Your task to perform on an android device: What's the weather today? Image 0: 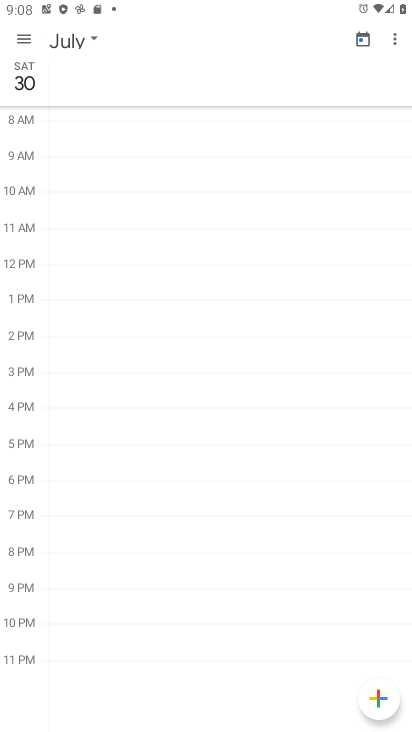
Step 0: drag from (295, 631) to (295, 278)
Your task to perform on an android device: What's the weather today? Image 1: 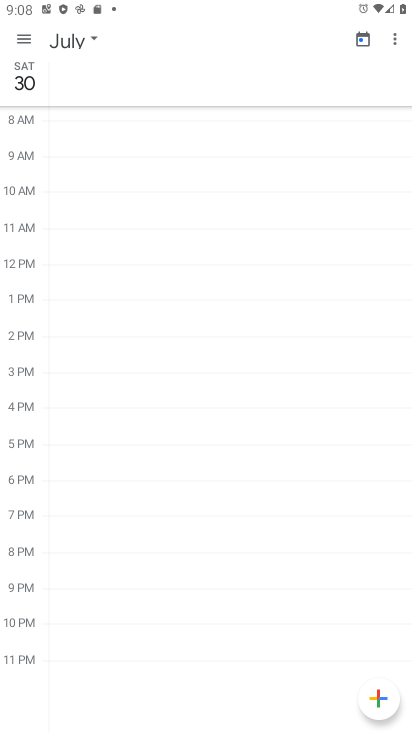
Step 1: press back button
Your task to perform on an android device: What's the weather today? Image 2: 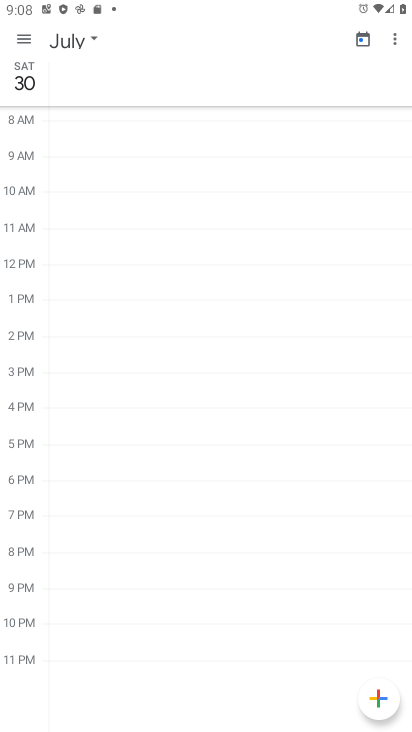
Step 2: press back button
Your task to perform on an android device: What's the weather today? Image 3: 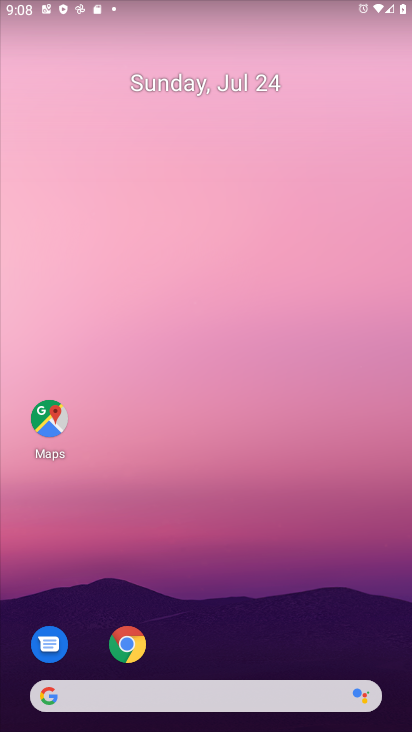
Step 3: drag from (219, 546) to (219, 298)
Your task to perform on an android device: What's the weather today? Image 4: 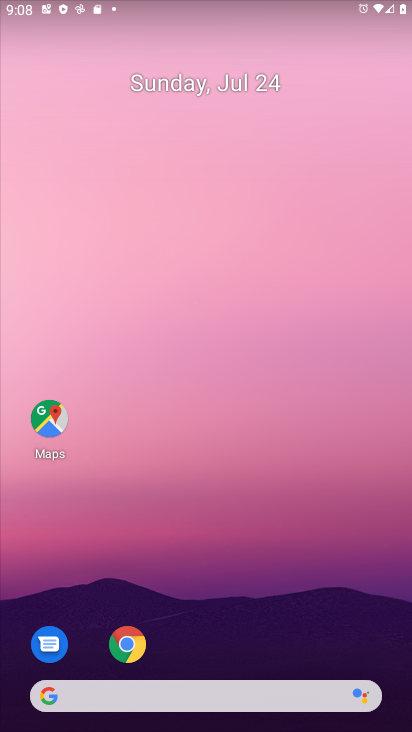
Step 4: drag from (82, 172) to (357, 282)
Your task to perform on an android device: What's the weather today? Image 5: 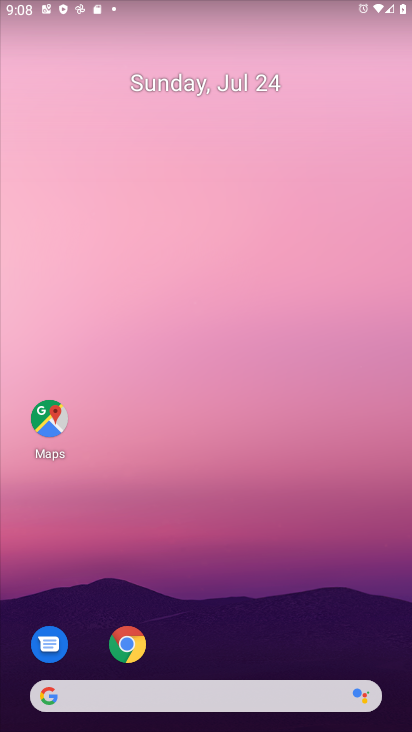
Step 5: click (395, 310)
Your task to perform on an android device: What's the weather today? Image 6: 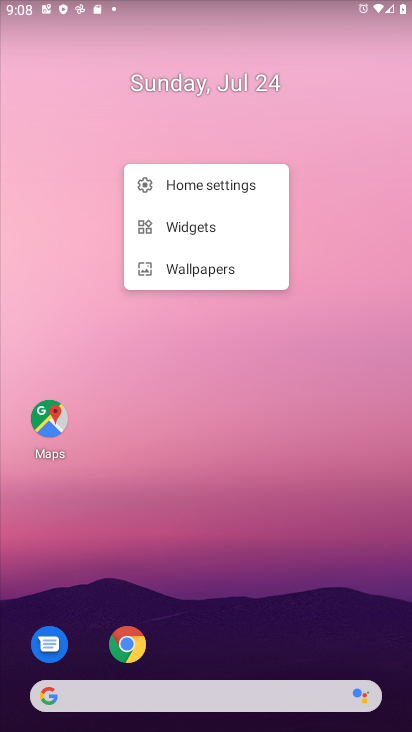
Step 6: drag from (58, 232) to (406, 377)
Your task to perform on an android device: What's the weather today? Image 7: 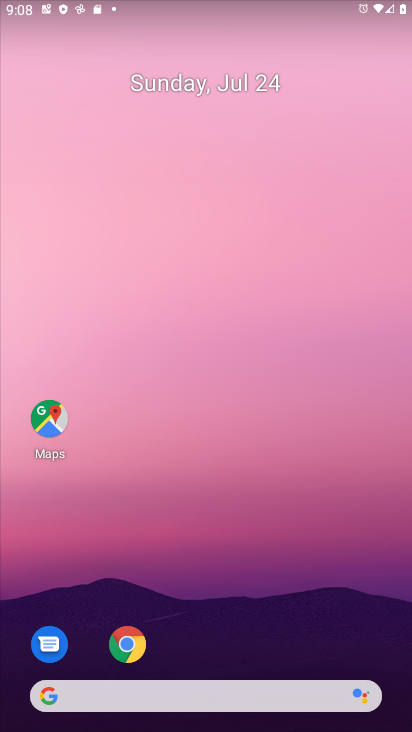
Step 7: drag from (52, 352) to (380, 463)
Your task to perform on an android device: What's the weather today? Image 8: 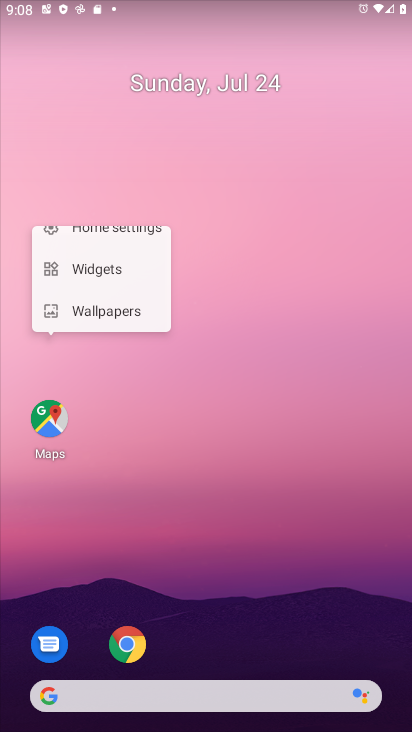
Step 8: drag from (75, 215) to (386, 335)
Your task to perform on an android device: What's the weather today? Image 9: 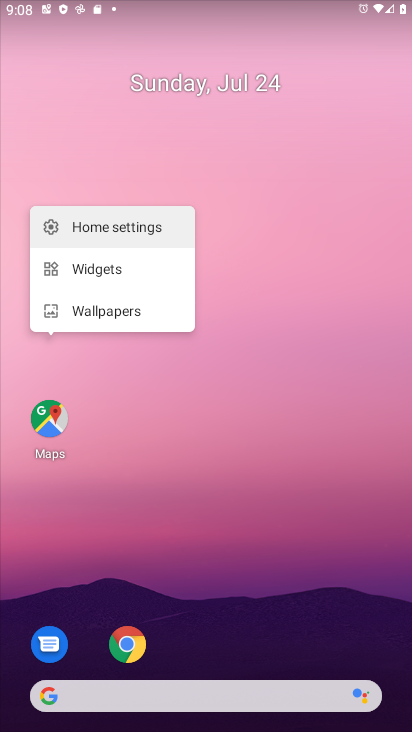
Step 9: drag from (205, 192) to (344, 469)
Your task to perform on an android device: What's the weather today? Image 10: 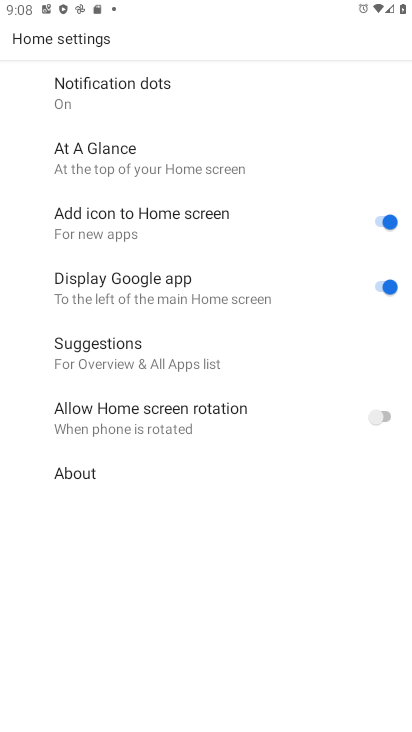
Step 10: drag from (17, 190) to (390, 432)
Your task to perform on an android device: What's the weather today? Image 11: 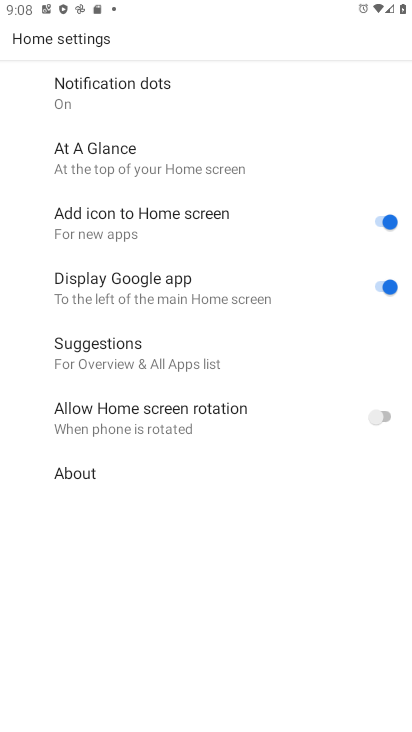
Step 11: press back button
Your task to perform on an android device: What's the weather today? Image 12: 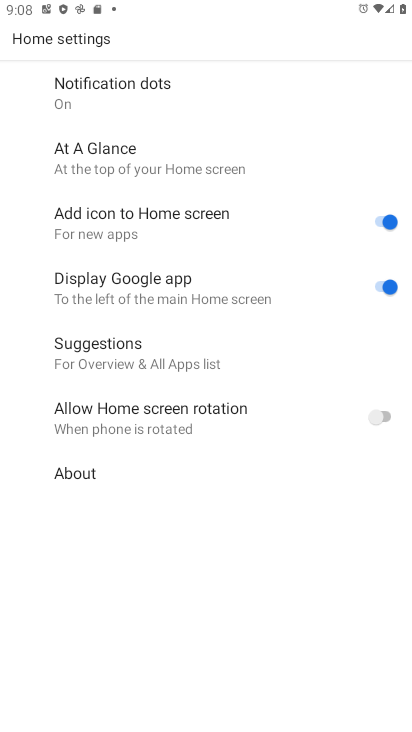
Step 12: press back button
Your task to perform on an android device: What's the weather today? Image 13: 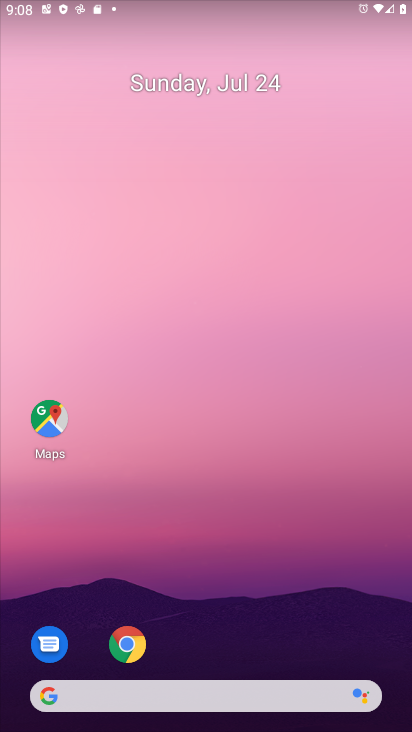
Step 13: drag from (99, 142) to (411, 294)
Your task to perform on an android device: What's the weather today? Image 14: 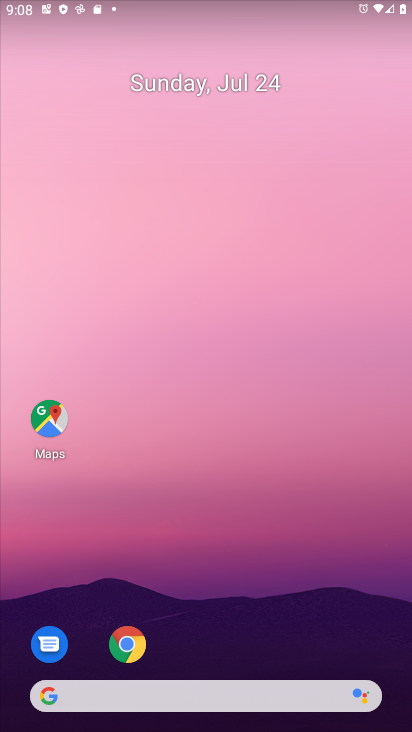
Step 14: drag from (139, 121) to (370, 314)
Your task to perform on an android device: What's the weather today? Image 15: 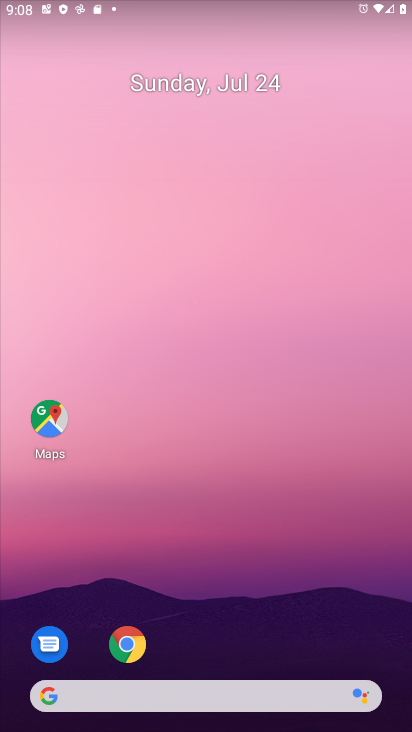
Step 15: drag from (179, 193) to (380, 327)
Your task to perform on an android device: What's the weather today? Image 16: 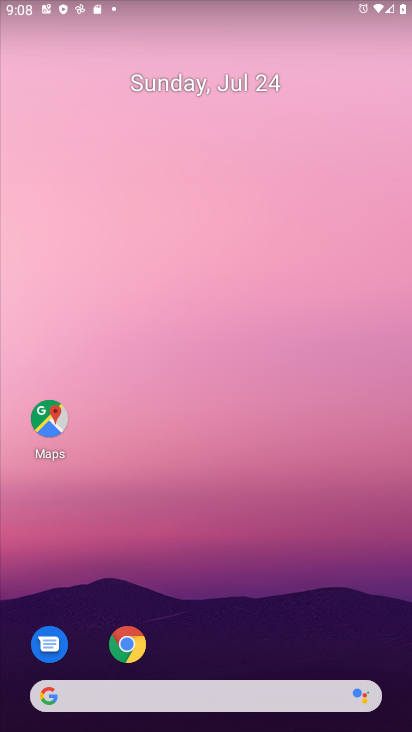
Step 16: drag from (104, 169) to (366, 432)
Your task to perform on an android device: What's the weather today? Image 17: 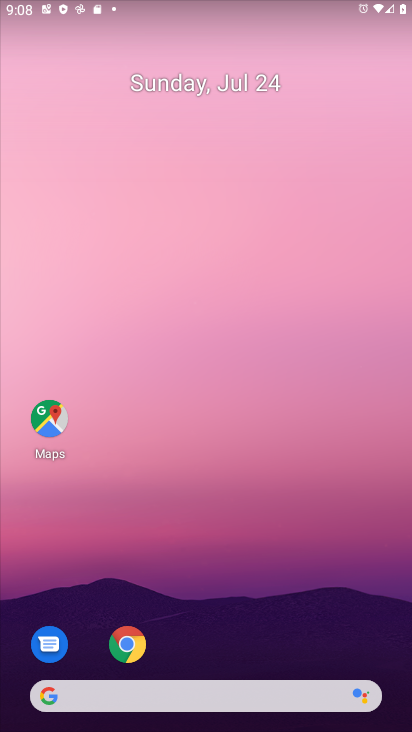
Step 17: drag from (186, 621) to (211, 149)
Your task to perform on an android device: What's the weather today? Image 18: 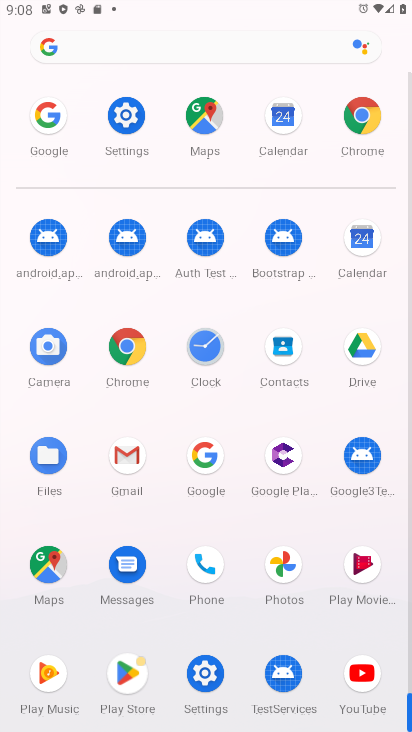
Step 18: click (127, 344)
Your task to perform on an android device: What's the weather today? Image 19: 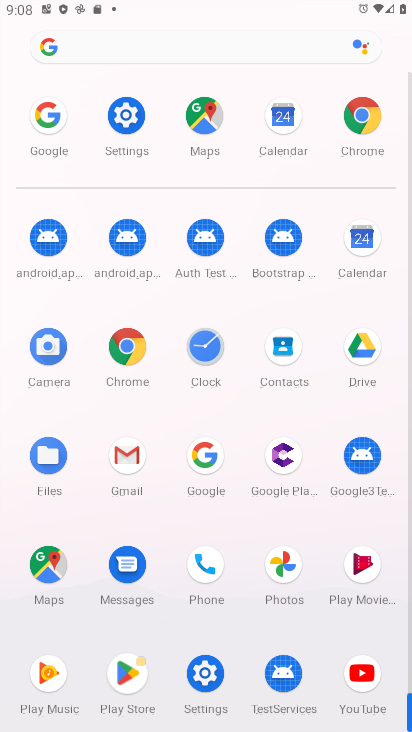
Step 19: click (134, 345)
Your task to perform on an android device: What's the weather today? Image 20: 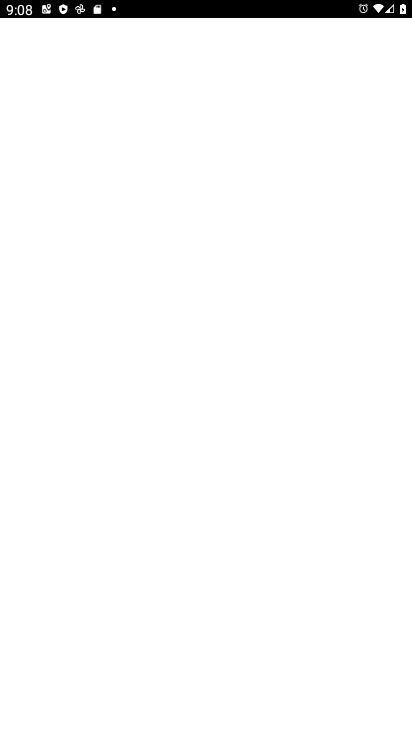
Step 20: click (126, 340)
Your task to perform on an android device: What's the weather today? Image 21: 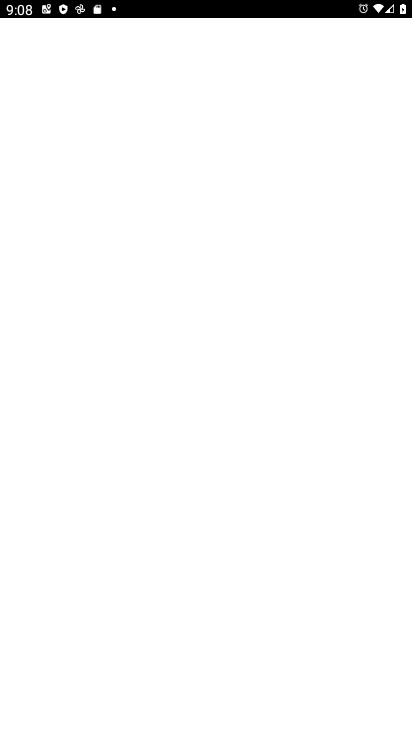
Step 21: click (129, 337)
Your task to perform on an android device: What's the weather today? Image 22: 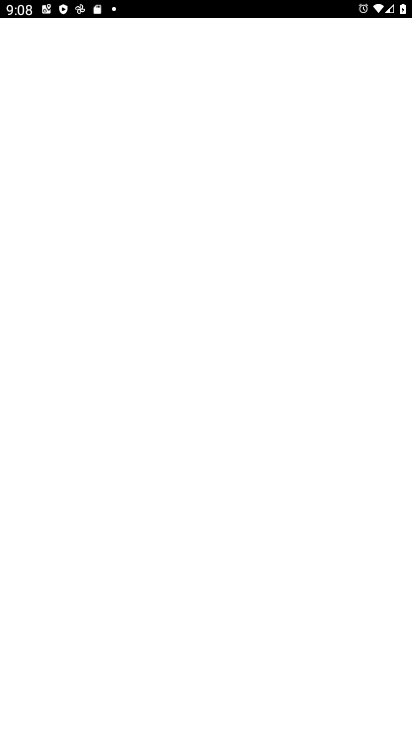
Step 22: click (106, 336)
Your task to perform on an android device: What's the weather today? Image 23: 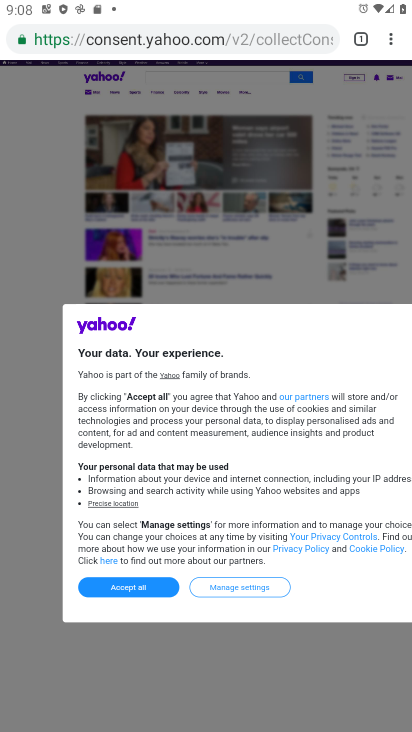
Step 23: click (393, 38)
Your task to perform on an android device: What's the weather today? Image 24: 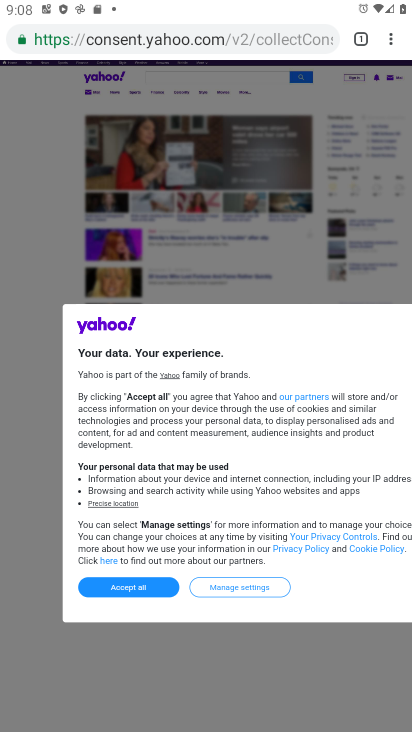
Step 24: click (393, 39)
Your task to perform on an android device: What's the weather today? Image 25: 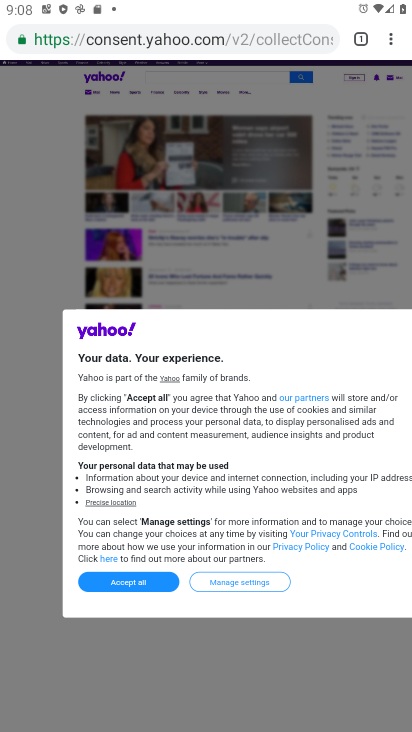
Step 25: click (390, 35)
Your task to perform on an android device: What's the weather today? Image 26: 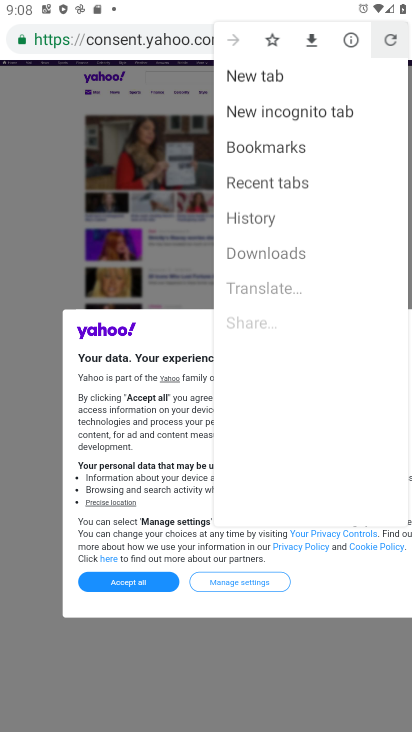
Step 26: click (390, 37)
Your task to perform on an android device: What's the weather today? Image 27: 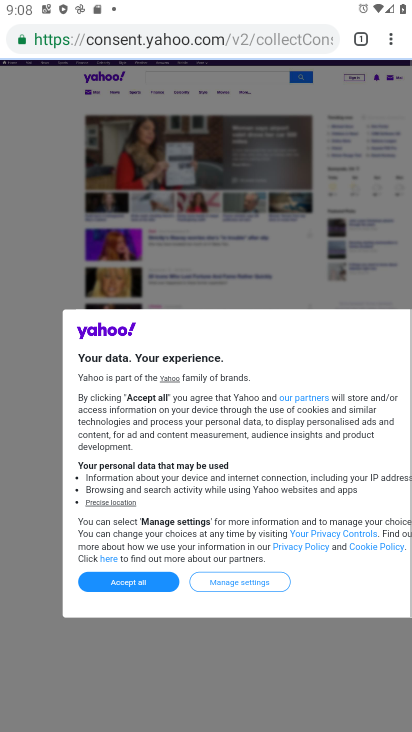
Step 27: click (242, 78)
Your task to perform on an android device: What's the weather today? Image 28: 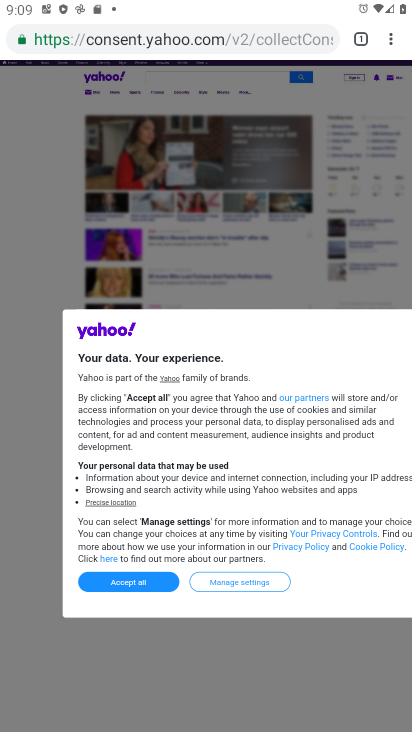
Step 28: click (400, 33)
Your task to perform on an android device: What's the weather today? Image 29: 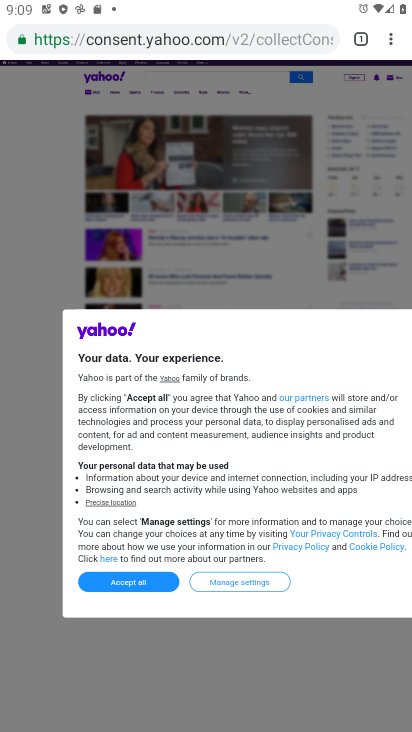
Step 29: click (390, 41)
Your task to perform on an android device: What's the weather today? Image 30: 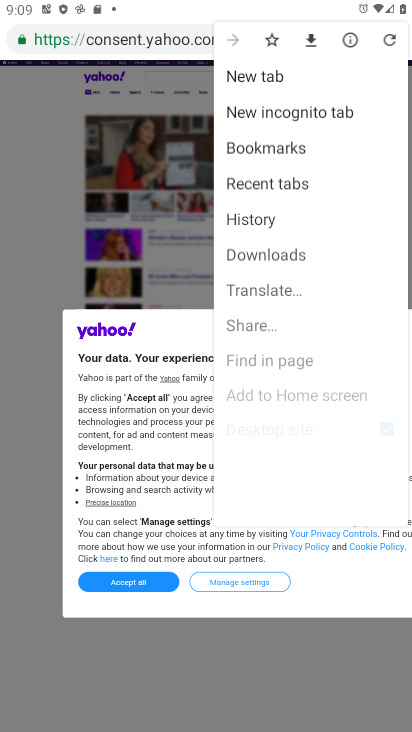
Step 30: click (392, 42)
Your task to perform on an android device: What's the weather today? Image 31: 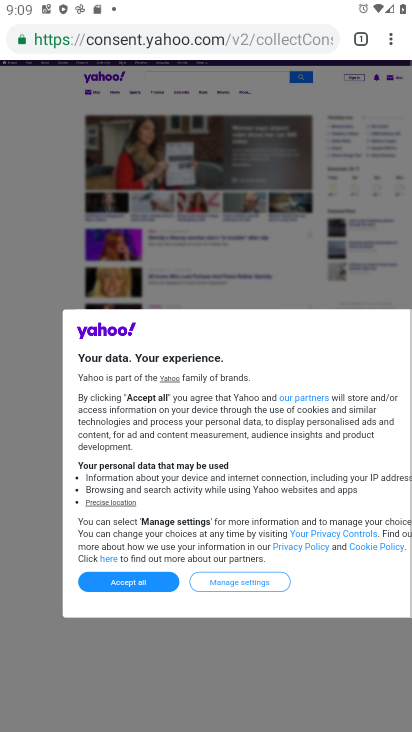
Step 31: click (260, 77)
Your task to perform on an android device: What's the weather today? Image 32: 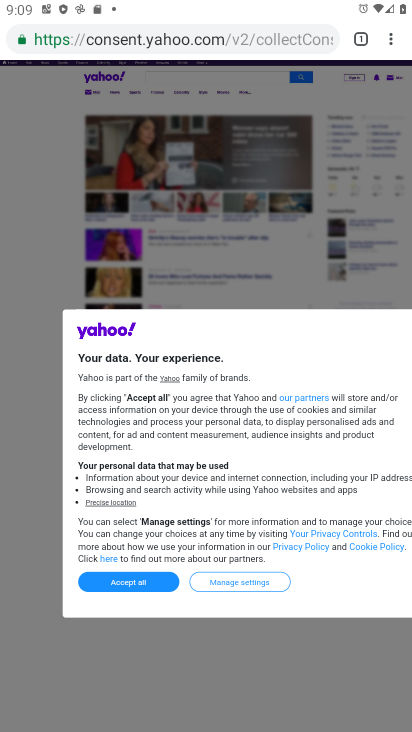
Step 32: drag from (396, 41) to (270, 76)
Your task to perform on an android device: What's the weather today? Image 33: 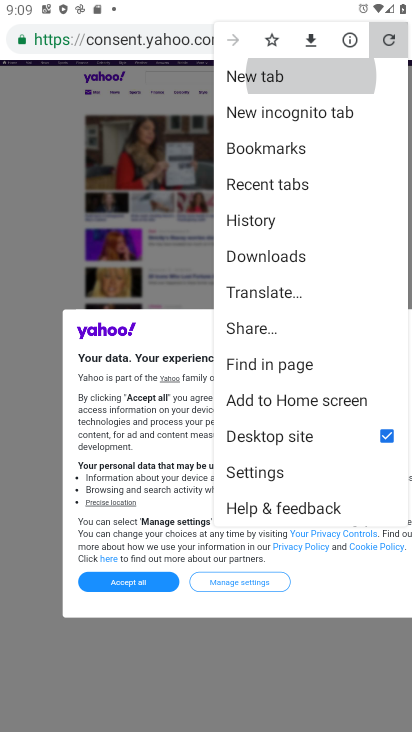
Step 33: click (264, 73)
Your task to perform on an android device: What's the weather today? Image 34: 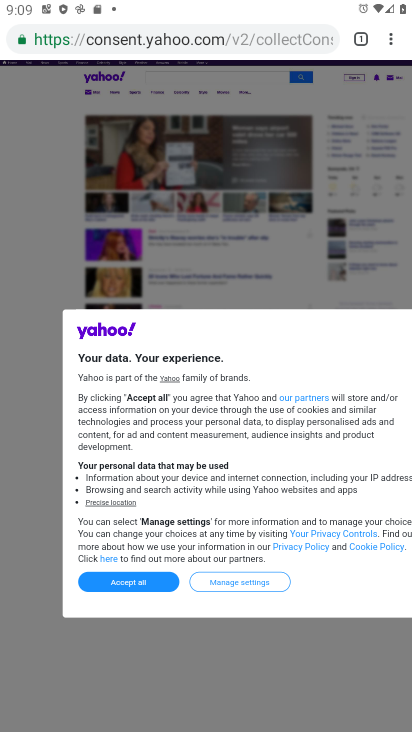
Step 34: click (263, 71)
Your task to perform on an android device: What's the weather today? Image 35: 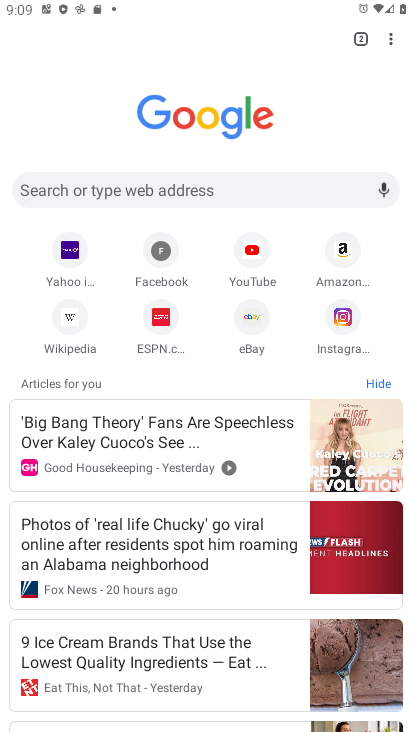
Step 35: click (73, 196)
Your task to perform on an android device: What's the weather today? Image 36: 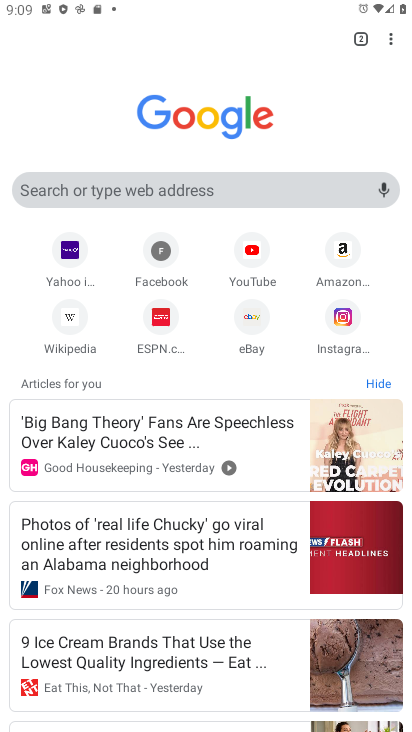
Step 36: click (75, 192)
Your task to perform on an android device: What's the weather today? Image 37: 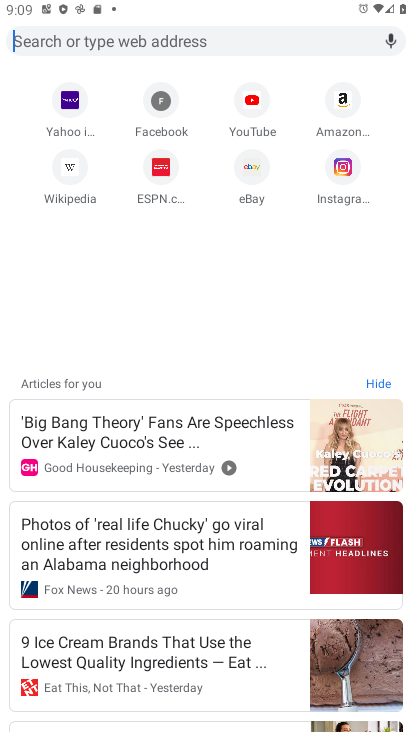
Step 37: click (80, 190)
Your task to perform on an android device: What's the weather today? Image 38: 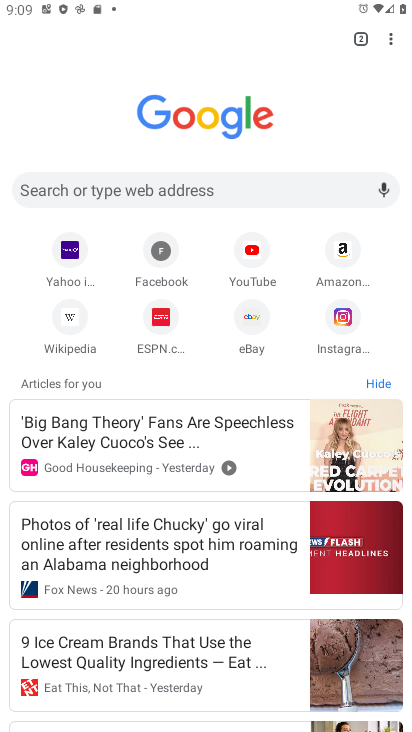
Step 38: type "what'sthe weather today?"
Your task to perform on an android device: What's the weather today? Image 39: 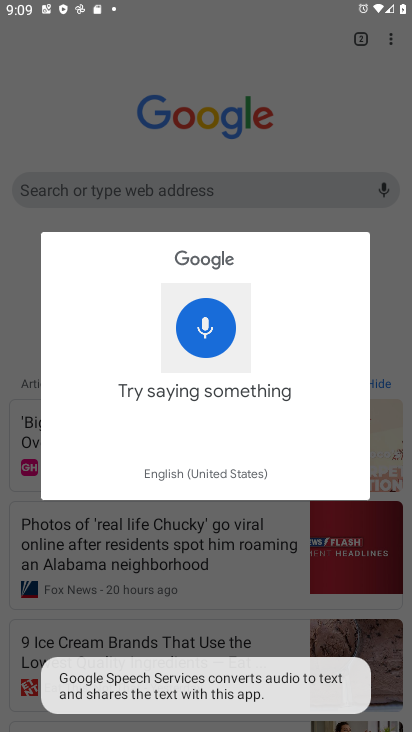
Step 39: click (296, 108)
Your task to perform on an android device: What's the weather today? Image 40: 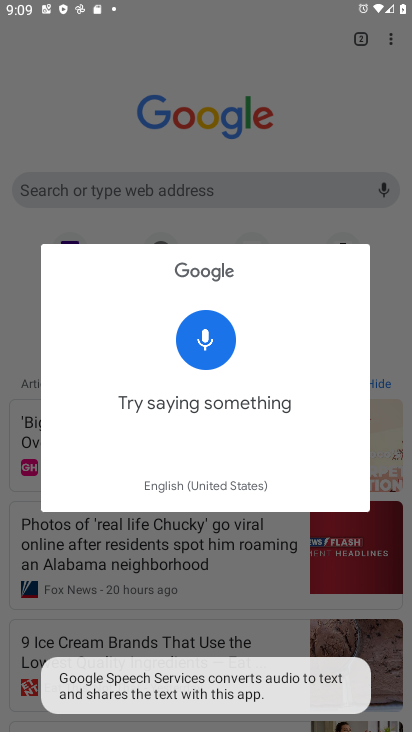
Step 40: click (298, 108)
Your task to perform on an android device: What's the weather today? Image 41: 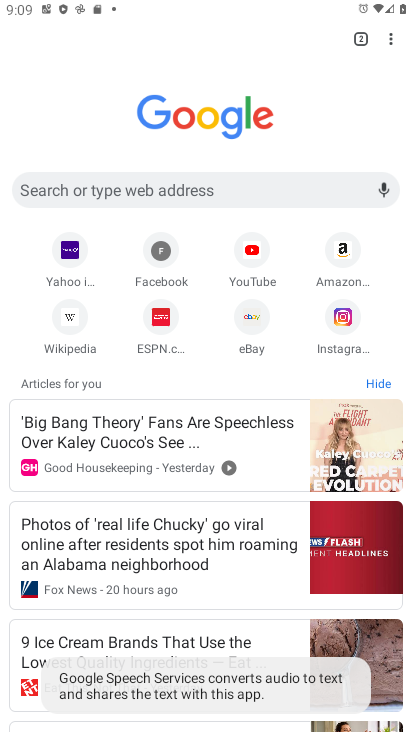
Step 41: click (299, 110)
Your task to perform on an android device: What's the weather today? Image 42: 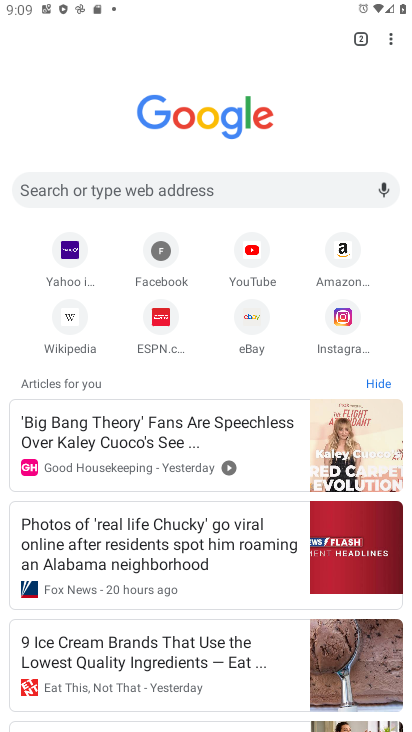
Step 42: click (95, 185)
Your task to perform on an android device: What's the weather today? Image 43: 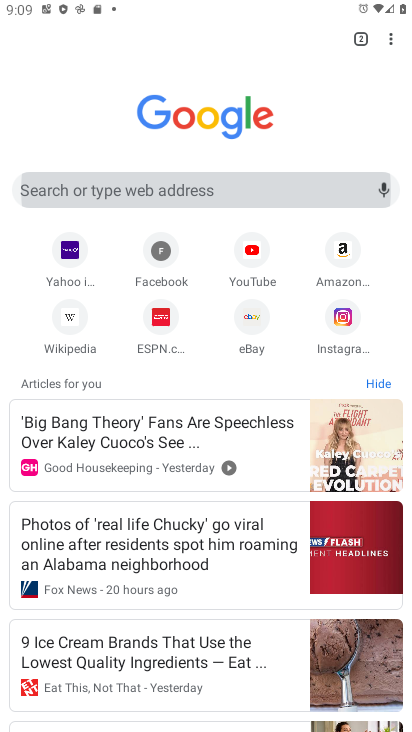
Step 43: click (96, 178)
Your task to perform on an android device: What's the weather today? Image 44: 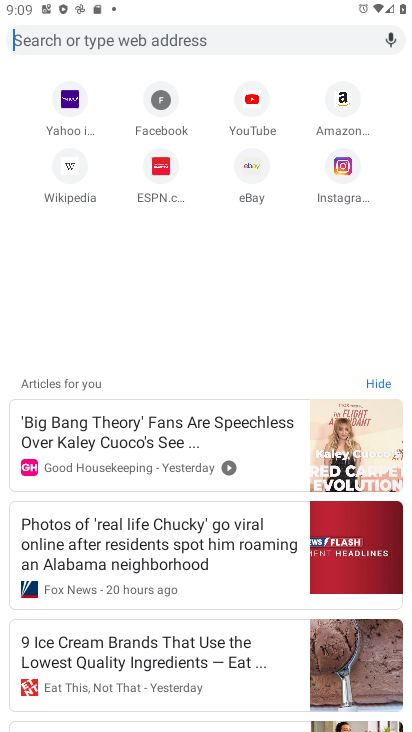
Step 44: click (97, 177)
Your task to perform on an android device: What's the weather today? Image 45: 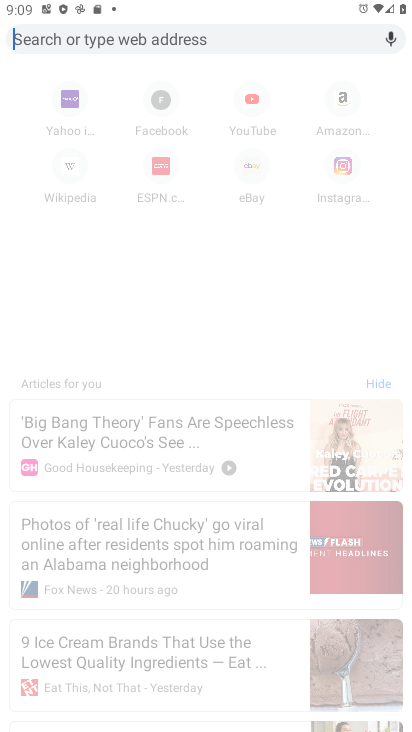
Step 45: click (97, 177)
Your task to perform on an android device: What's the weather today? Image 46: 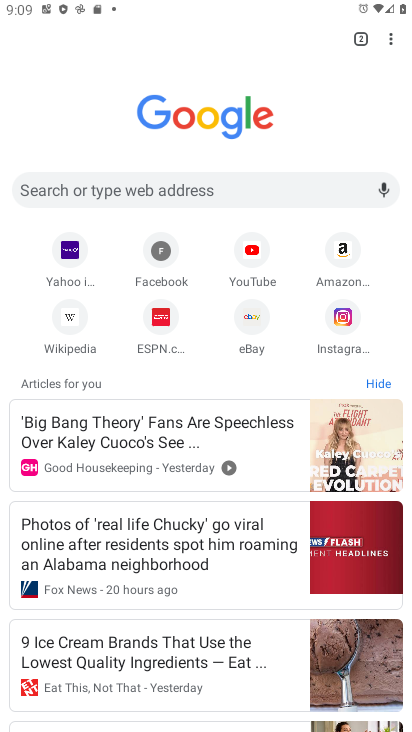
Step 46: click (53, 183)
Your task to perform on an android device: What's the weather today? Image 47: 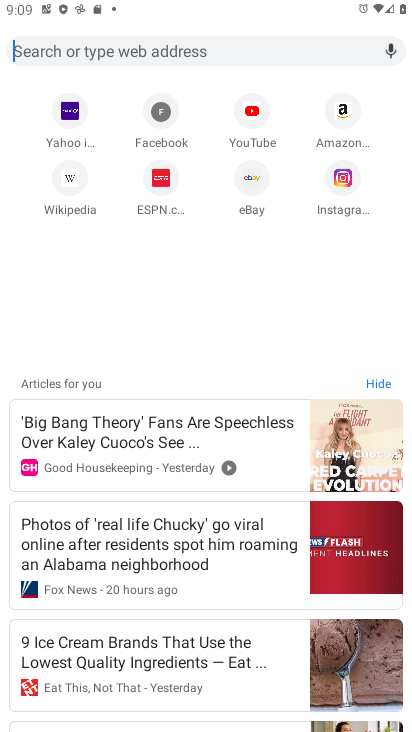
Step 47: click (69, 186)
Your task to perform on an android device: What's the weather today? Image 48: 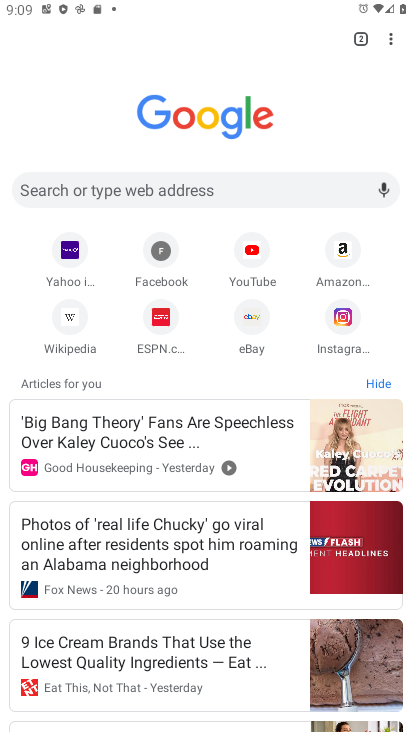
Step 48: click (83, 194)
Your task to perform on an android device: What's the weather today? Image 49: 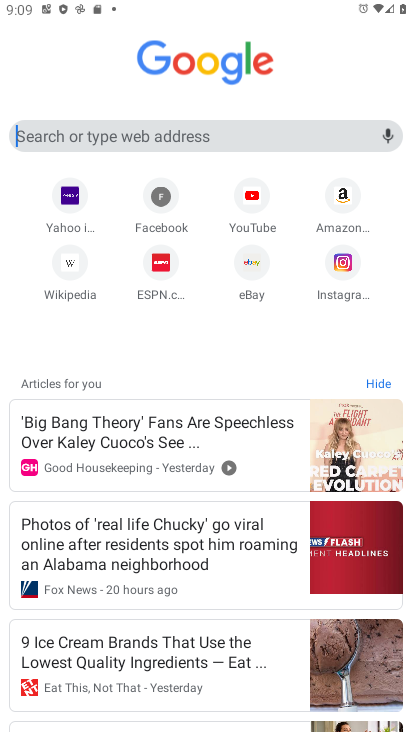
Step 49: click (87, 198)
Your task to perform on an android device: What's the weather today? Image 50: 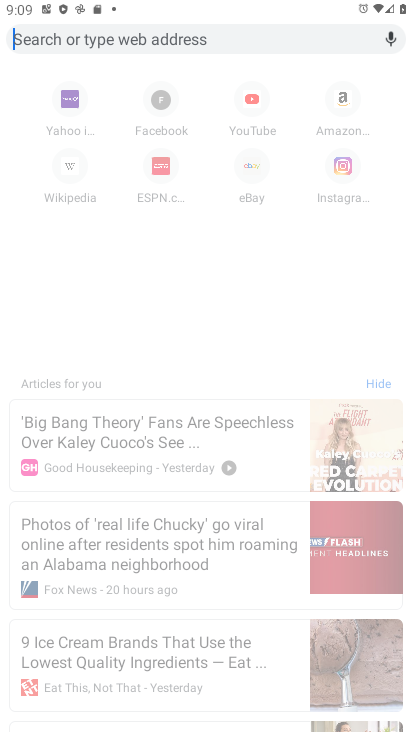
Step 50: click (87, 198)
Your task to perform on an android device: What's the weather today? Image 51: 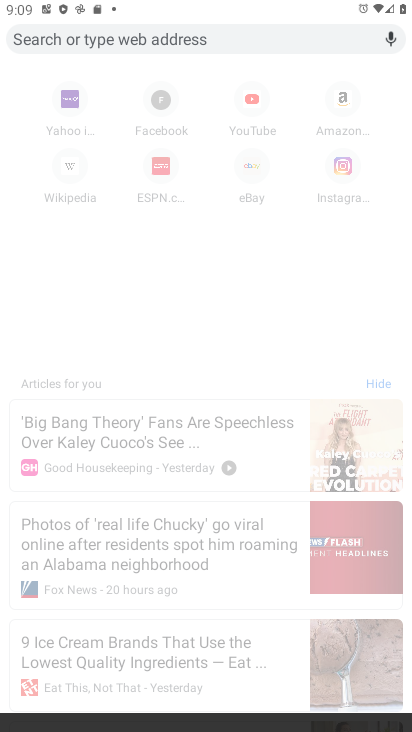
Step 51: click (85, 198)
Your task to perform on an android device: What's the weather today? Image 52: 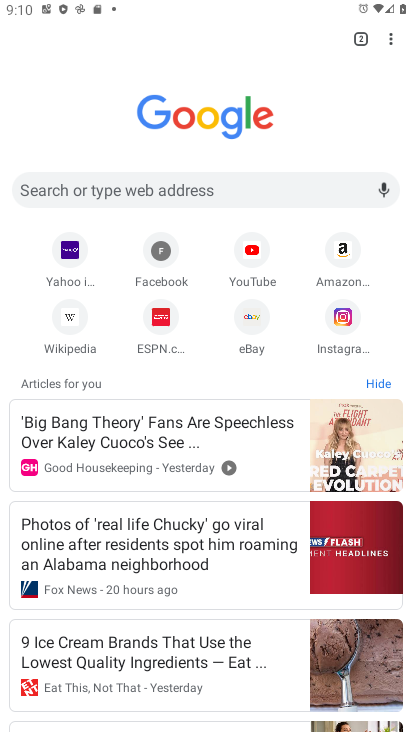
Step 52: type "what's the weather today?"
Your task to perform on an android device: What's the weather today? Image 53: 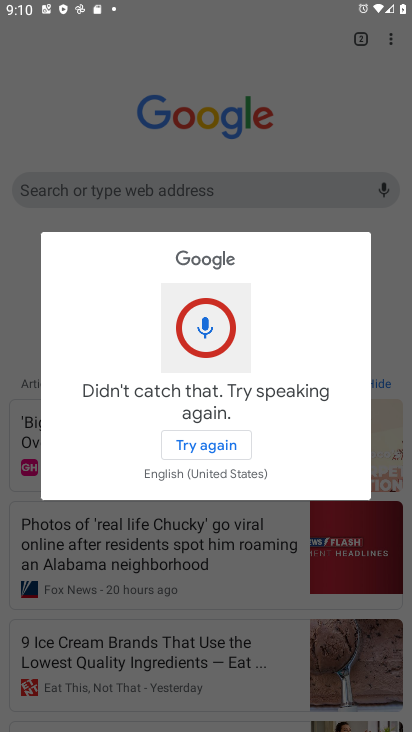
Step 53: click (304, 121)
Your task to perform on an android device: What's the weather today? Image 54: 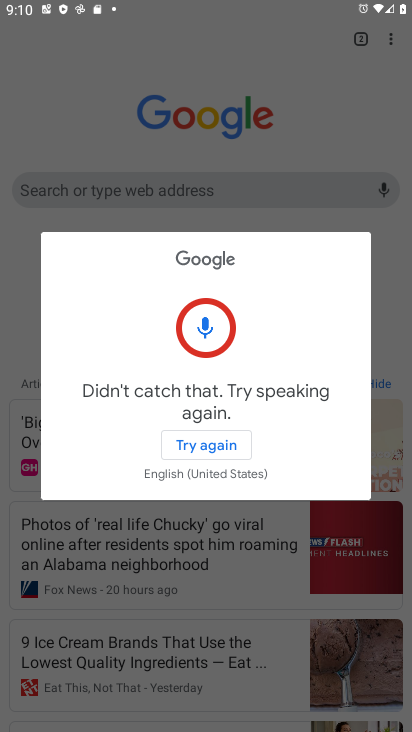
Step 54: click (306, 122)
Your task to perform on an android device: What's the weather today? Image 55: 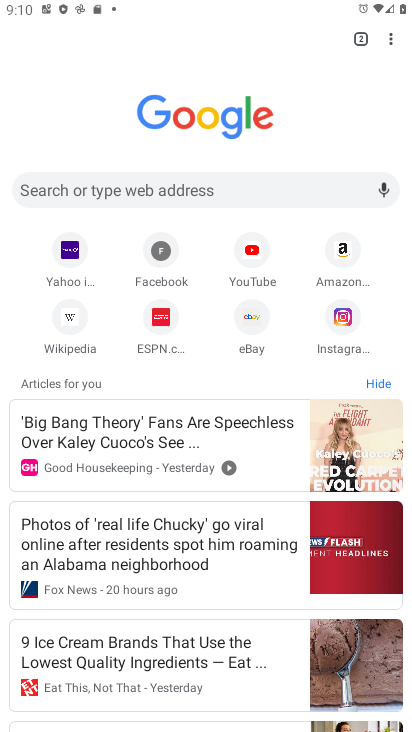
Step 55: task complete